Your task to perform on an android device: Open battery settings Image 0: 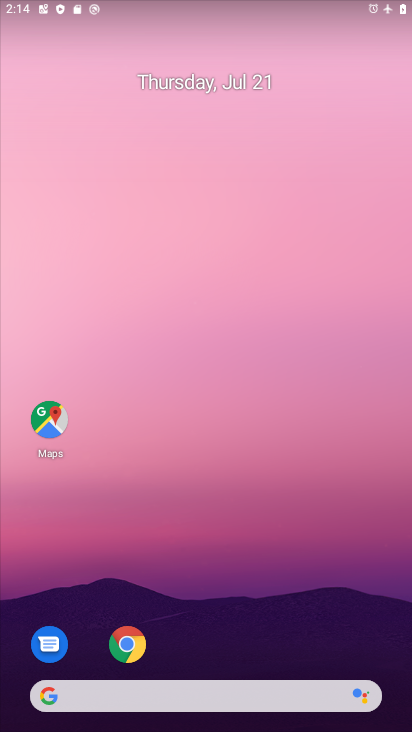
Step 0: drag from (182, 684) to (226, 185)
Your task to perform on an android device: Open battery settings Image 1: 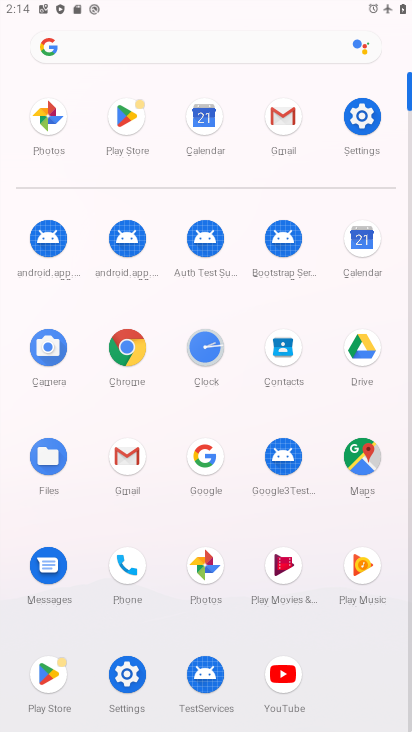
Step 1: click (376, 121)
Your task to perform on an android device: Open battery settings Image 2: 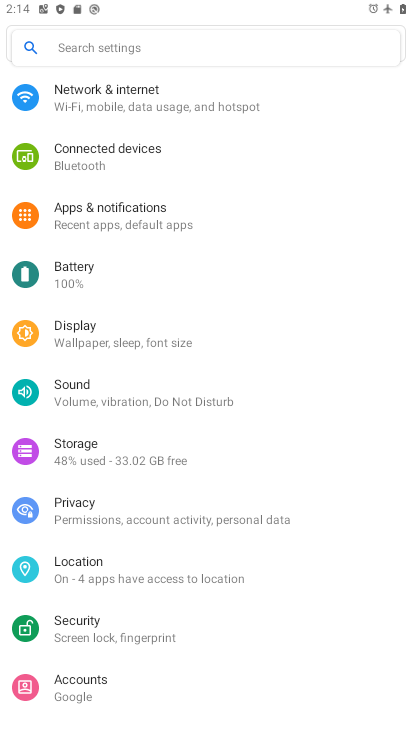
Step 2: click (85, 267)
Your task to perform on an android device: Open battery settings Image 3: 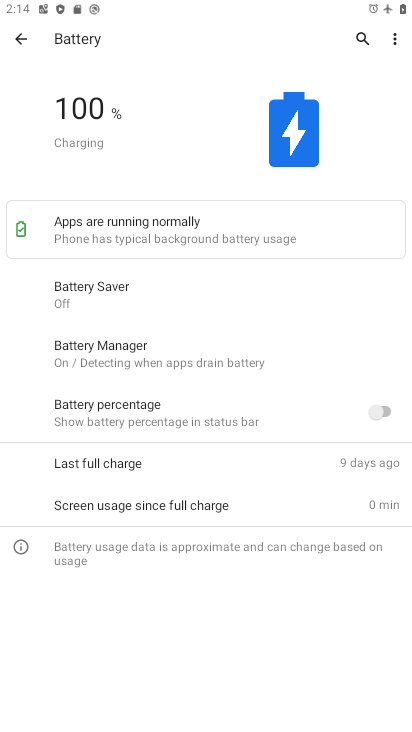
Step 3: task complete